Your task to perform on an android device: What's a good restaurant in Atlanta? Image 0: 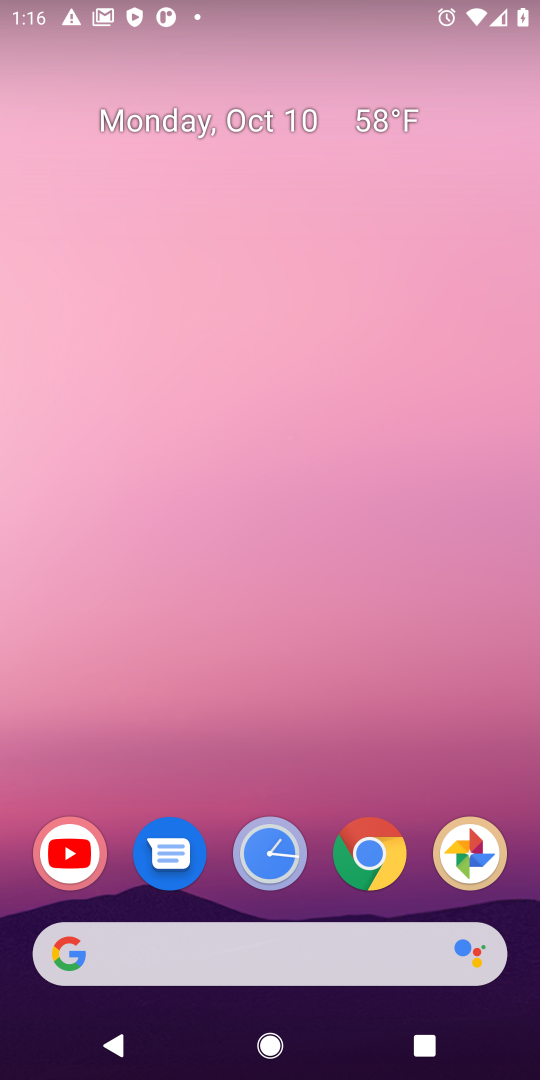
Step 0: click (357, 869)
Your task to perform on an android device: What's a good restaurant in Atlanta? Image 1: 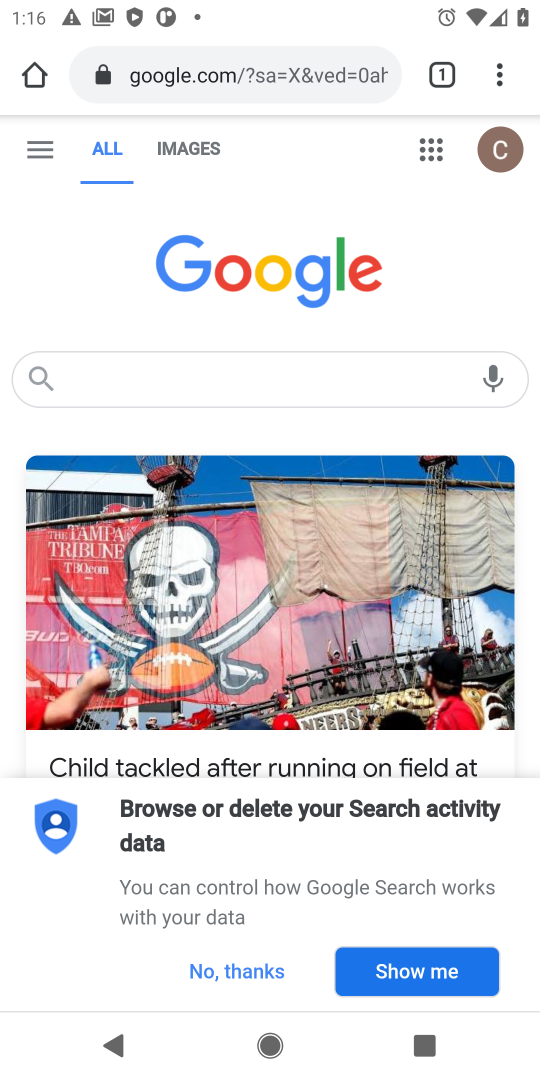
Step 1: click (277, 82)
Your task to perform on an android device: What's a good restaurant in Atlanta? Image 2: 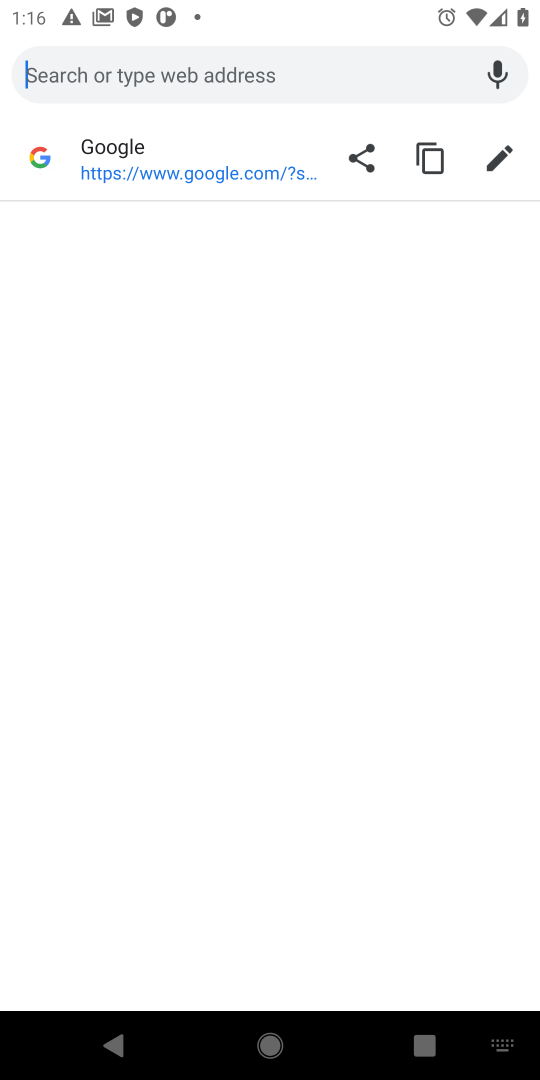
Step 2: type "good restaurant in Atlanta?"
Your task to perform on an android device: What's a good restaurant in Atlanta? Image 3: 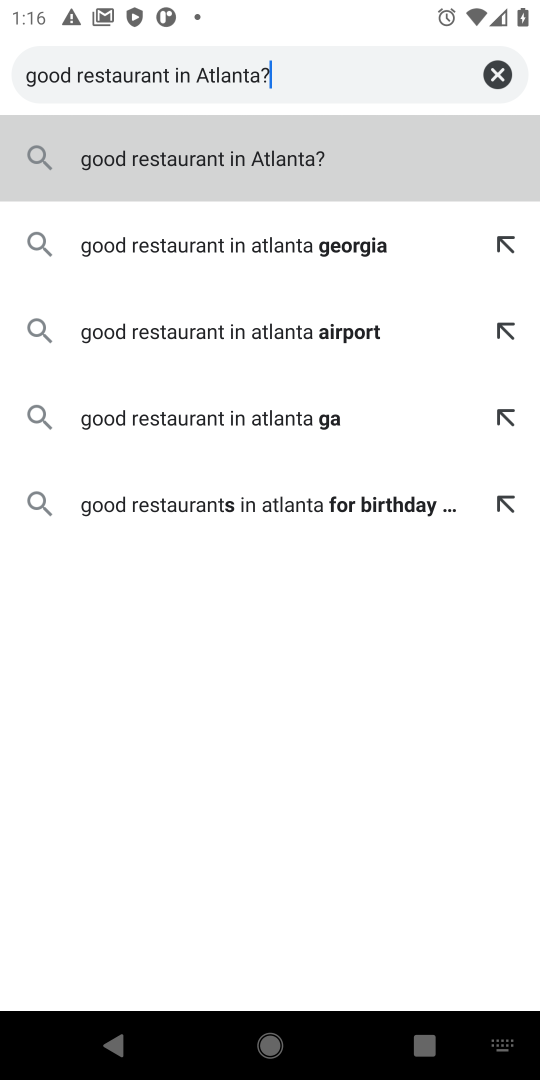
Step 3: click (330, 154)
Your task to perform on an android device: What's a good restaurant in Atlanta? Image 4: 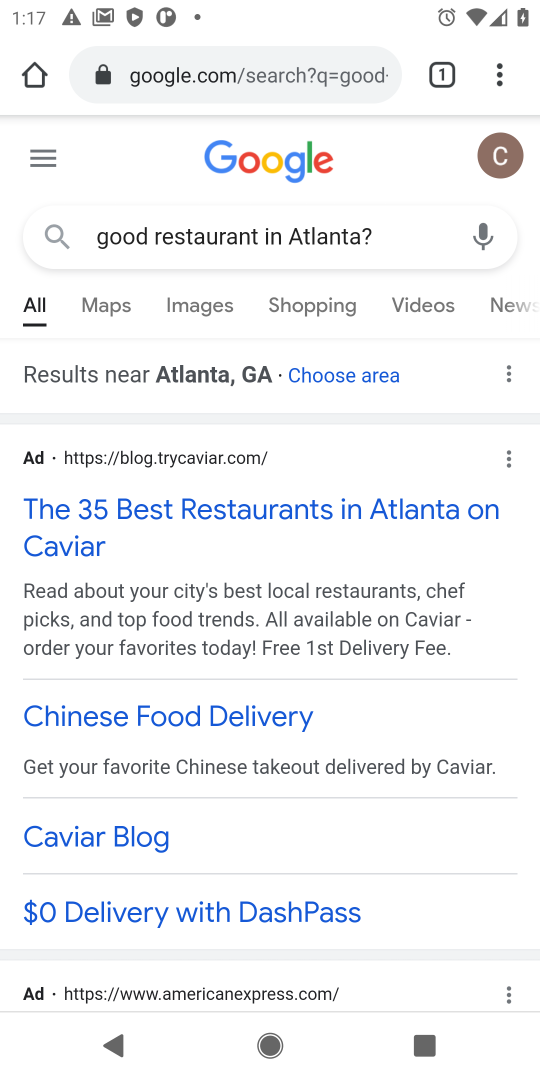
Step 4: task complete